Your task to perform on an android device: Open wifi settings Image 0: 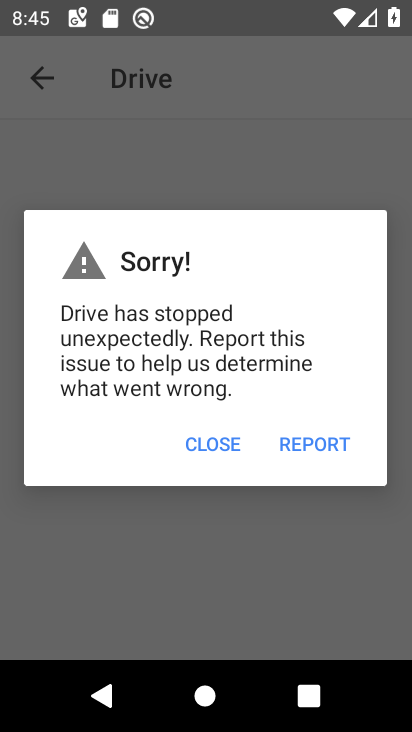
Step 0: press home button
Your task to perform on an android device: Open wifi settings Image 1: 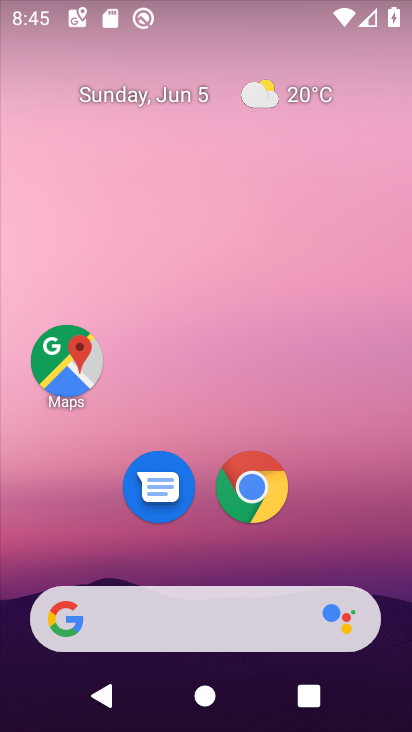
Step 1: drag from (122, 563) to (131, 192)
Your task to perform on an android device: Open wifi settings Image 2: 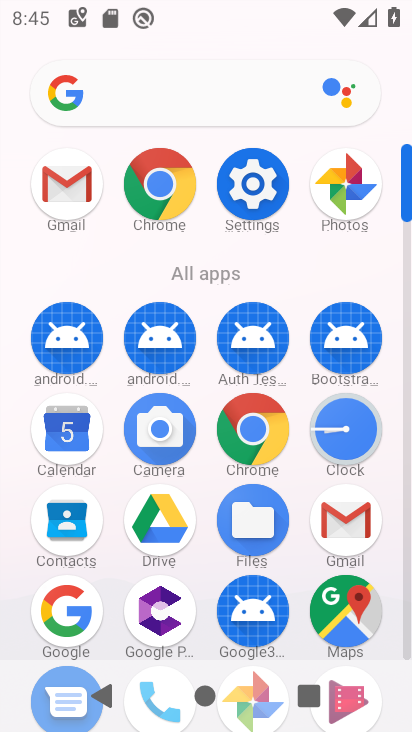
Step 2: click (232, 164)
Your task to perform on an android device: Open wifi settings Image 3: 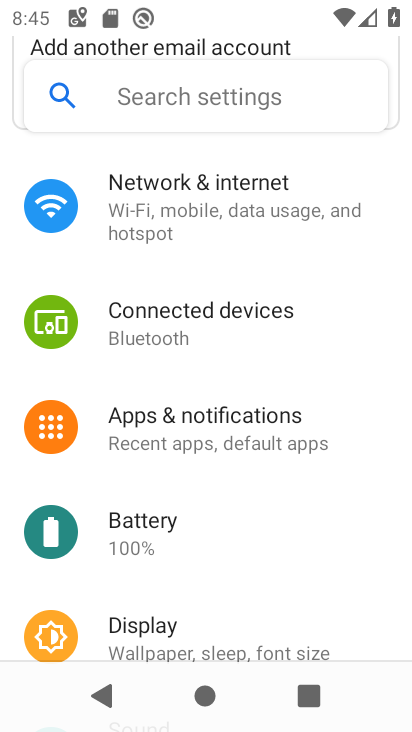
Step 3: click (175, 175)
Your task to perform on an android device: Open wifi settings Image 4: 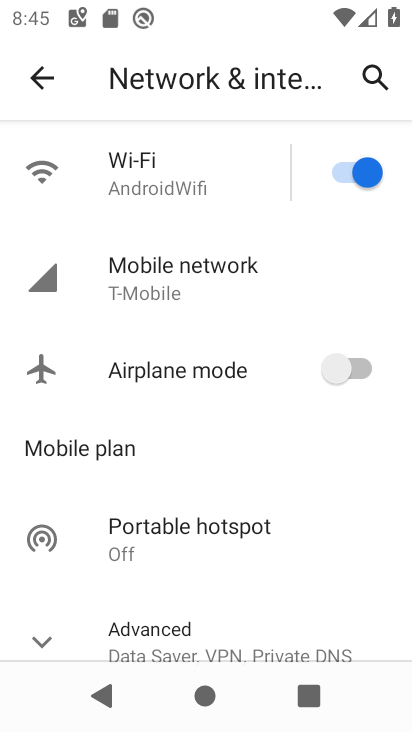
Step 4: click (206, 179)
Your task to perform on an android device: Open wifi settings Image 5: 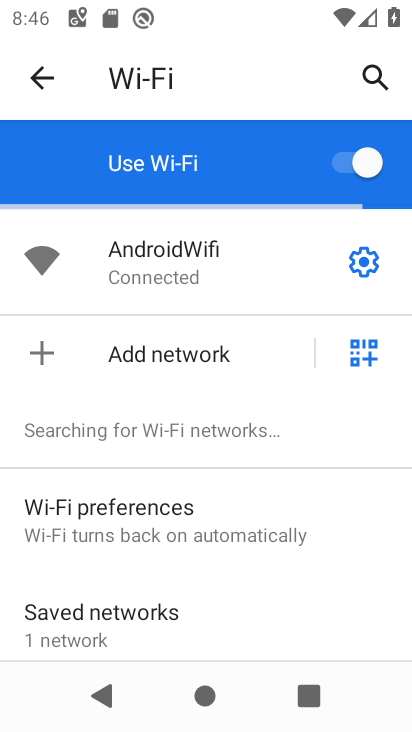
Step 5: task complete